Your task to perform on an android device: Open Yahoo.com Image 0: 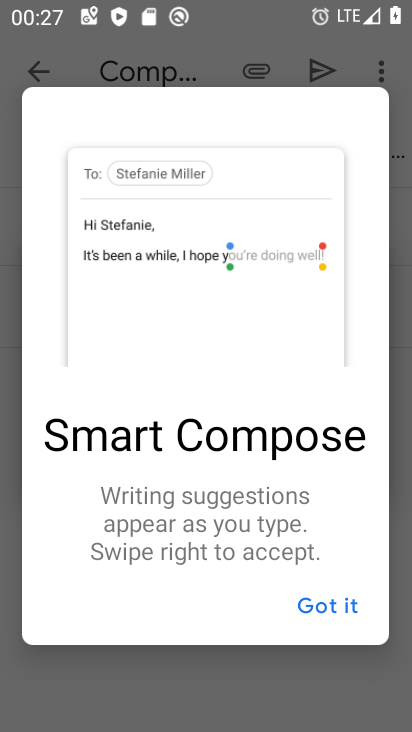
Step 0: press home button
Your task to perform on an android device: Open Yahoo.com Image 1: 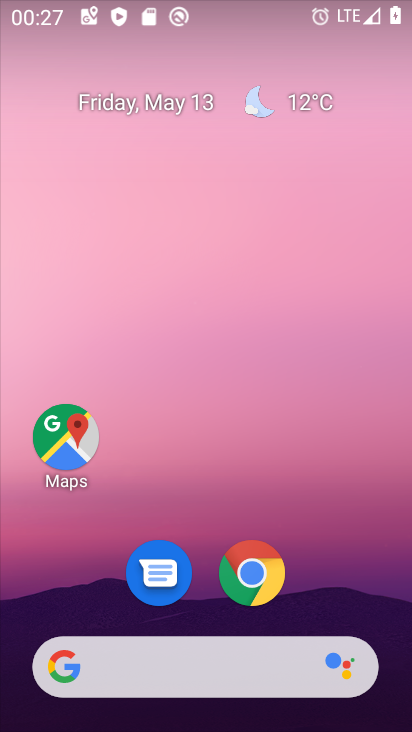
Step 1: click (238, 665)
Your task to perform on an android device: Open Yahoo.com Image 2: 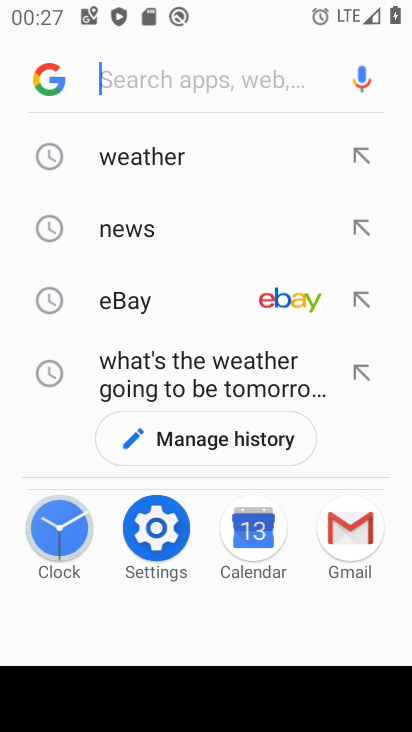
Step 2: type "yahoo.com"
Your task to perform on an android device: Open Yahoo.com Image 3: 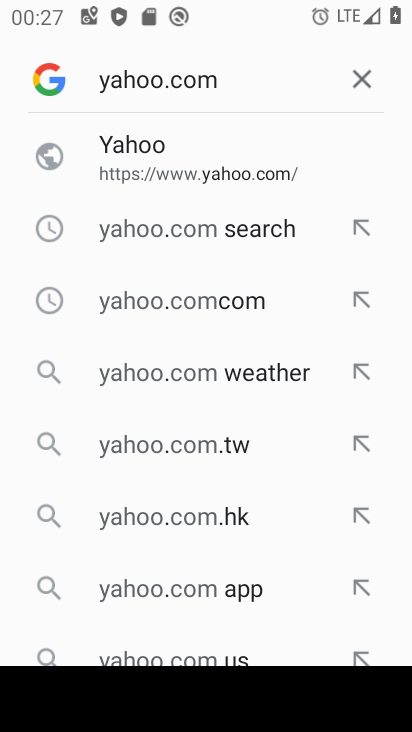
Step 3: click (147, 150)
Your task to perform on an android device: Open Yahoo.com Image 4: 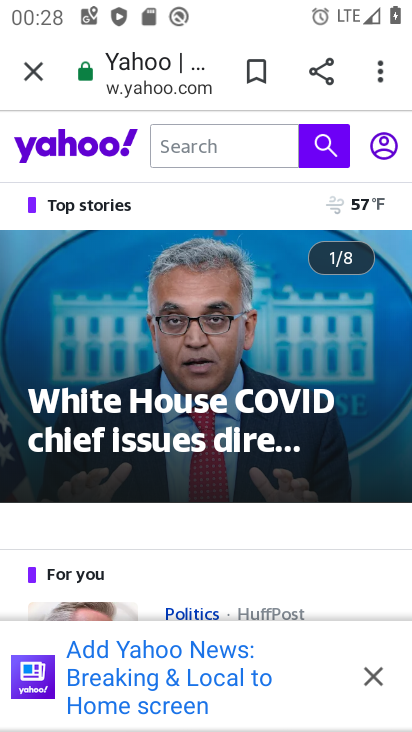
Step 4: task complete